Your task to perform on an android device: toggle data saver in the chrome app Image 0: 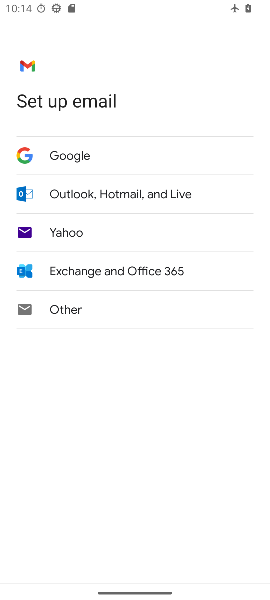
Step 0: press home button
Your task to perform on an android device: toggle data saver in the chrome app Image 1: 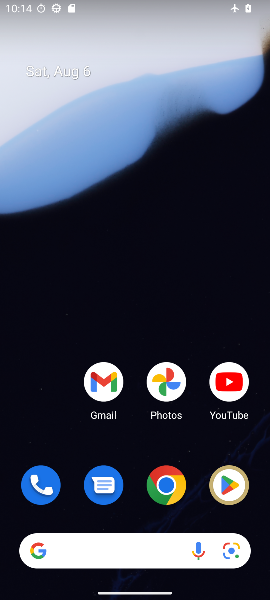
Step 1: drag from (193, 447) to (205, 48)
Your task to perform on an android device: toggle data saver in the chrome app Image 2: 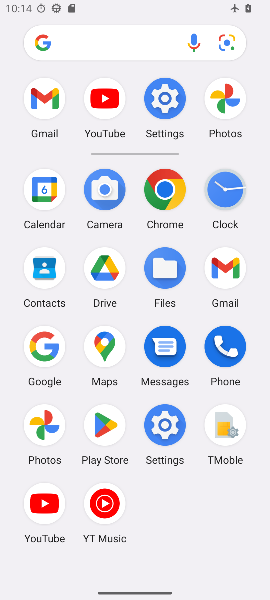
Step 2: click (166, 189)
Your task to perform on an android device: toggle data saver in the chrome app Image 3: 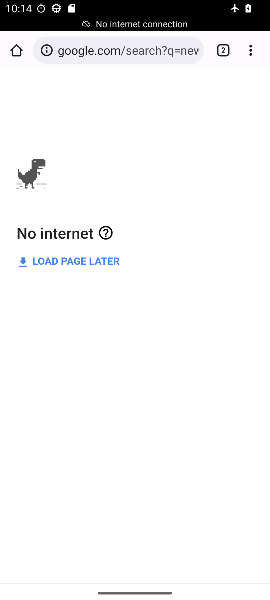
Step 3: task complete